Your task to perform on an android device: toggle javascript in the chrome app Image 0: 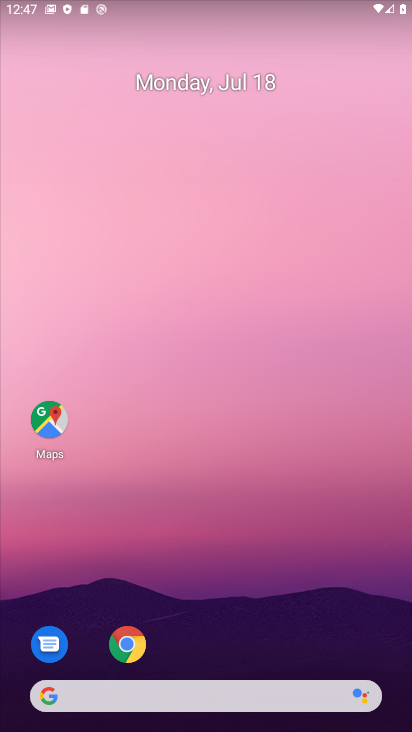
Step 0: click (127, 641)
Your task to perform on an android device: toggle javascript in the chrome app Image 1: 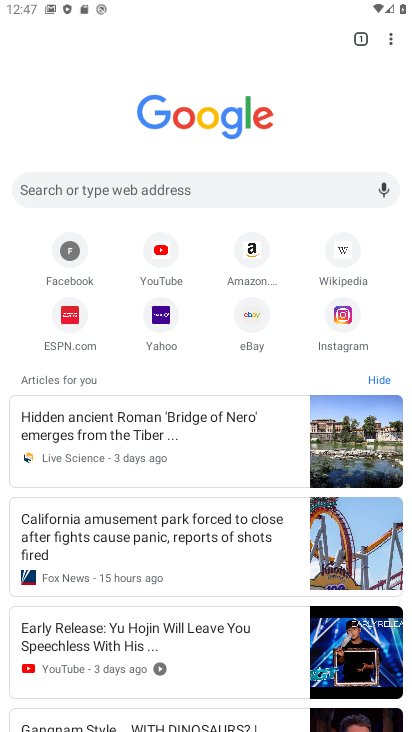
Step 1: click (394, 32)
Your task to perform on an android device: toggle javascript in the chrome app Image 2: 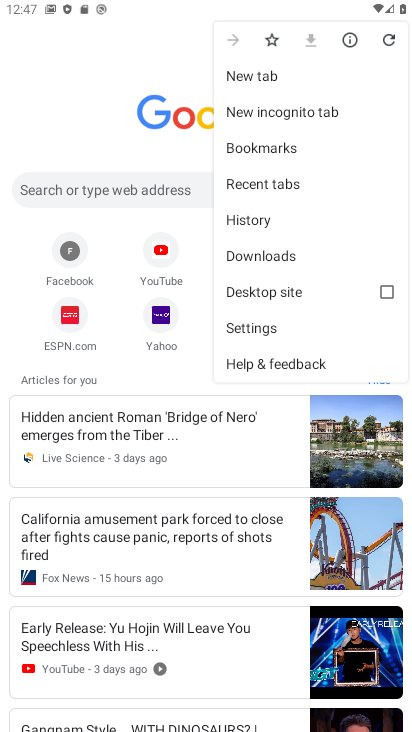
Step 2: click (262, 320)
Your task to perform on an android device: toggle javascript in the chrome app Image 3: 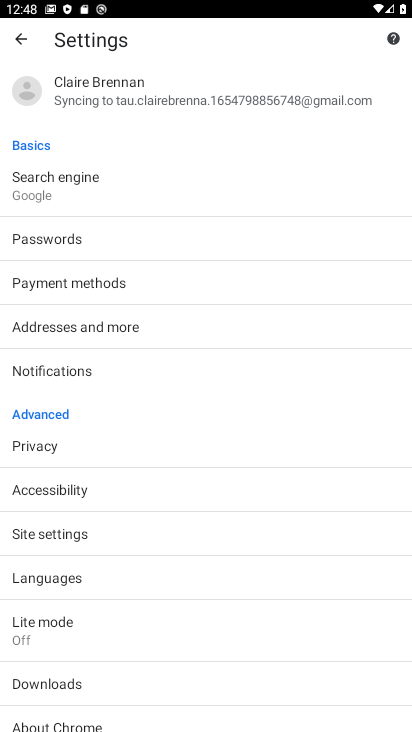
Step 3: click (128, 536)
Your task to perform on an android device: toggle javascript in the chrome app Image 4: 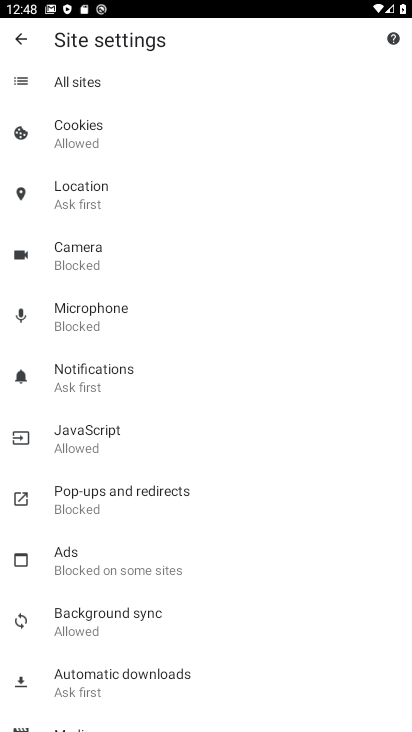
Step 4: click (123, 434)
Your task to perform on an android device: toggle javascript in the chrome app Image 5: 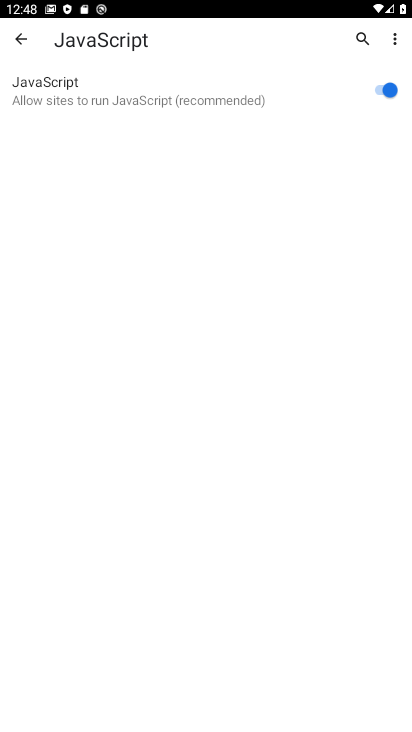
Step 5: click (376, 73)
Your task to perform on an android device: toggle javascript in the chrome app Image 6: 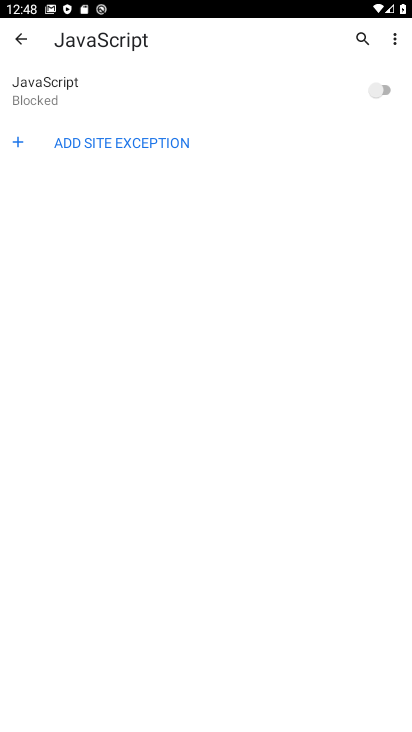
Step 6: task complete